Your task to perform on an android device: Go to Yahoo.com Image 0: 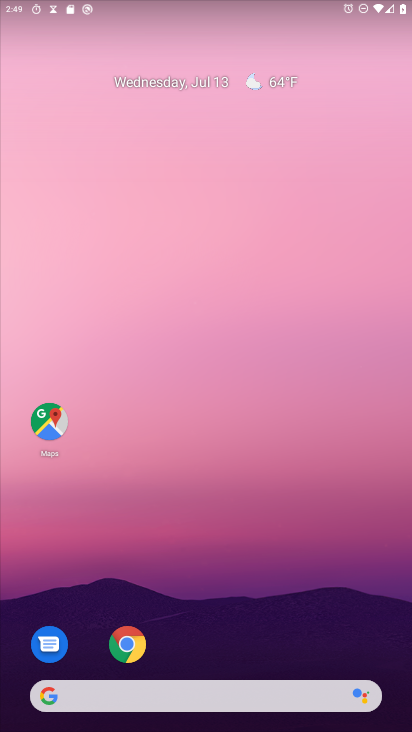
Step 0: press home button
Your task to perform on an android device: Go to Yahoo.com Image 1: 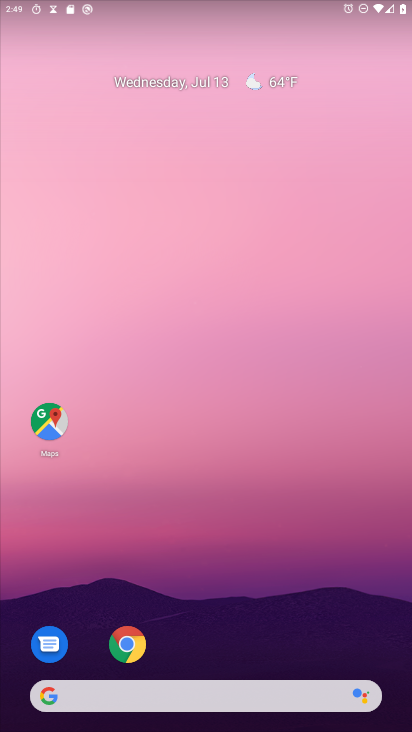
Step 1: click (133, 694)
Your task to perform on an android device: Go to Yahoo.com Image 2: 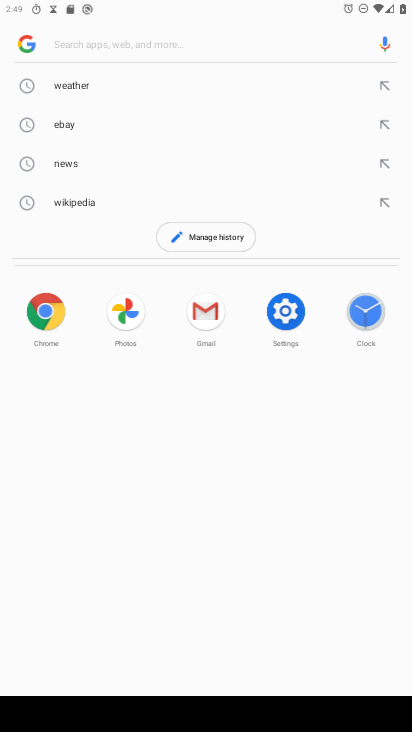
Step 2: type "Yahoo.com"
Your task to perform on an android device: Go to Yahoo.com Image 3: 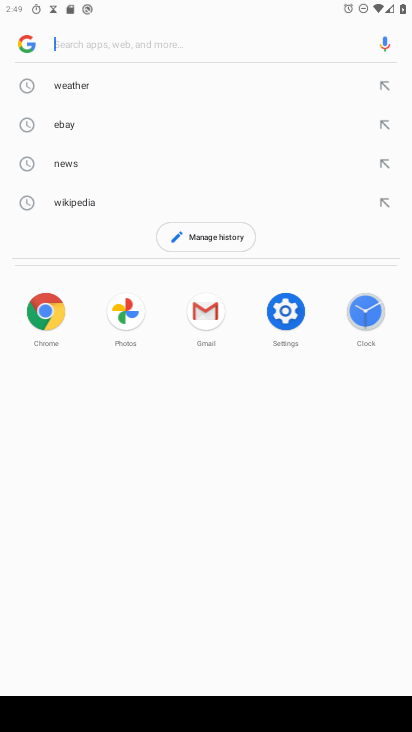
Step 3: click (111, 46)
Your task to perform on an android device: Go to Yahoo.com Image 4: 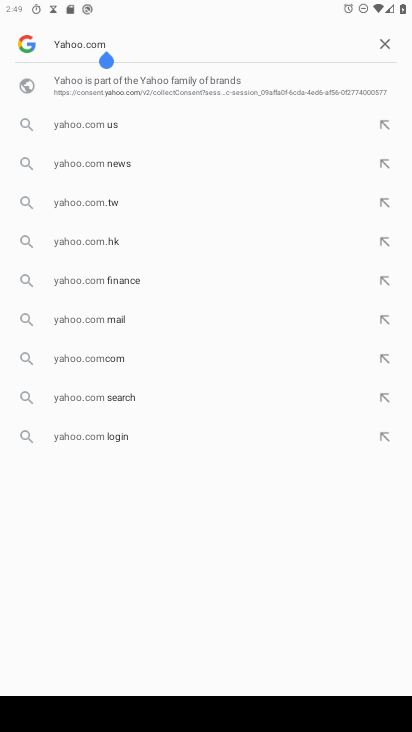
Step 4: press enter
Your task to perform on an android device: Go to Yahoo.com Image 5: 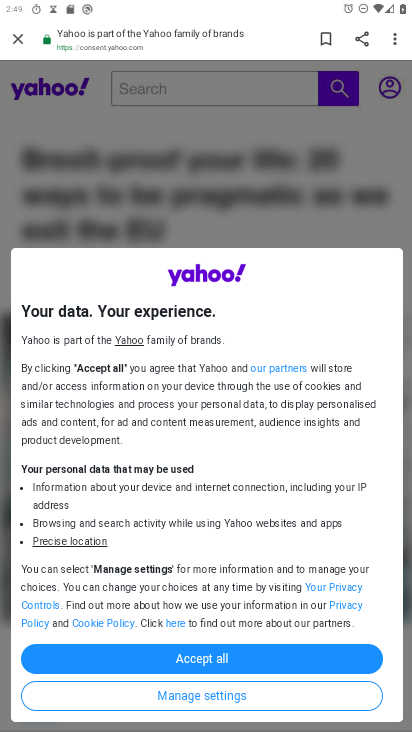
Step 5: click (293, 657)
Your task to perform on an android device: Go to Yahoo.com Image 6: 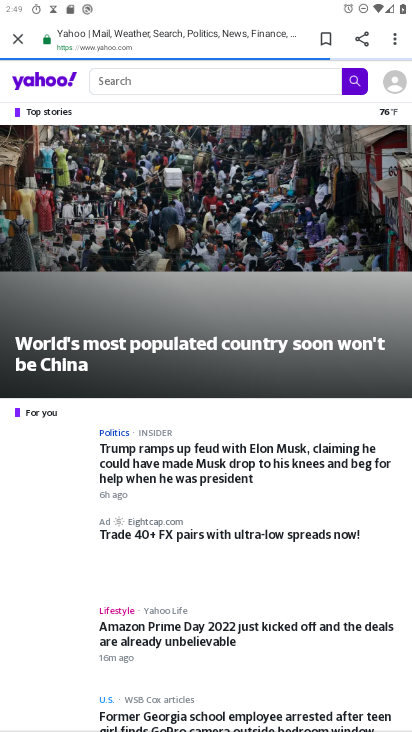
Step 6: task complete